Your task to perform on an android device: Go to Maps Image 0: 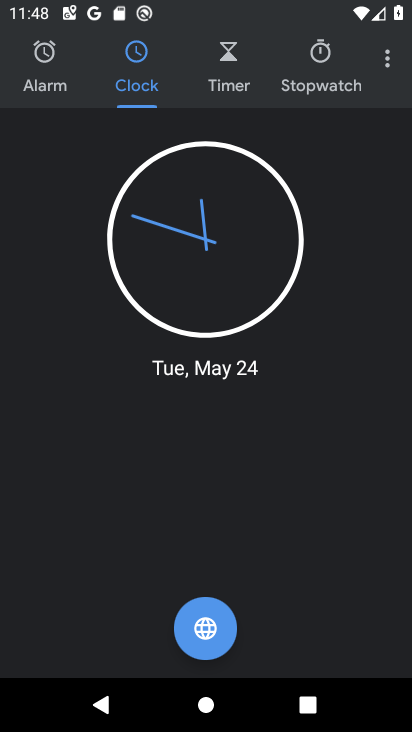
Step 0: press home button
Your task to perform on an android device: Go to Maps Image 1: 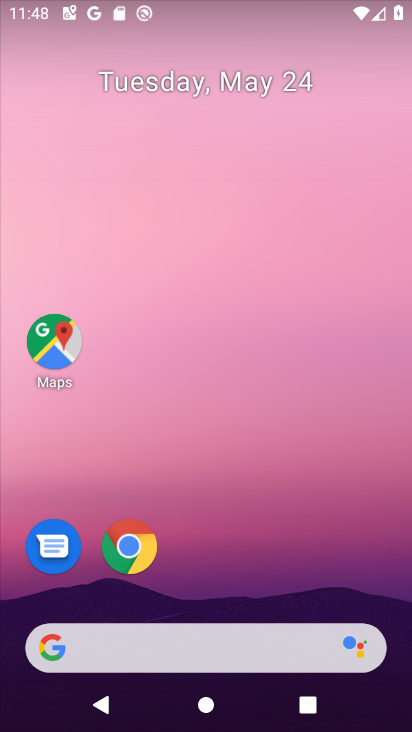
Step 1: click (53, 330)
Your task to perform on an android device: Go to Maps Image 2: 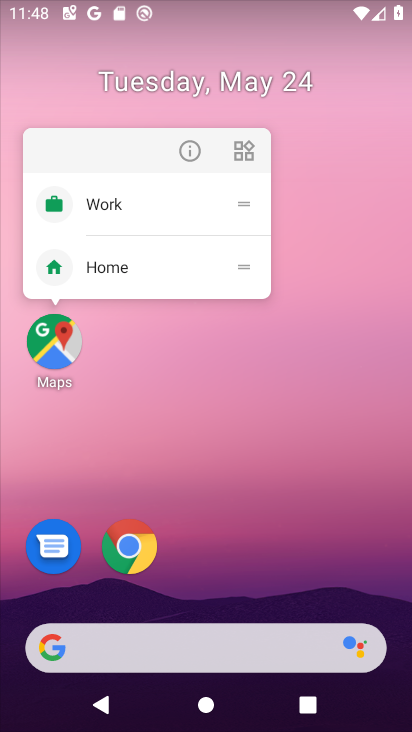
Step 2: click (61, 333)
Your task to perform on an android device: Go to Maps Image 3: 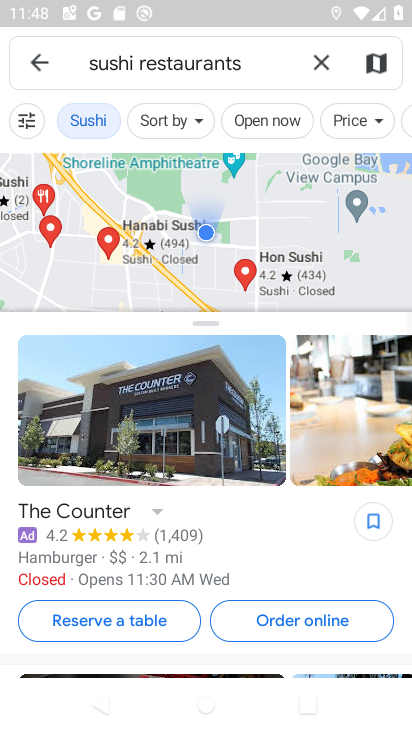
Step 3: click (42, 67)
Your task to perform on an android device: Go to Maps Image 4: 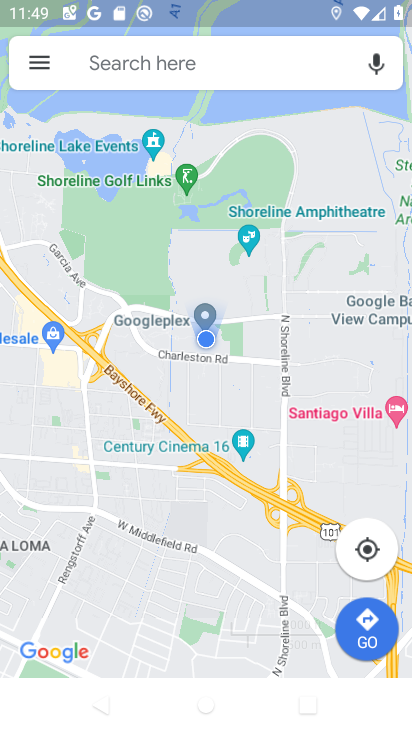
Step 4: task complete